Your task to perform on an android device: Open location settings Image 0: 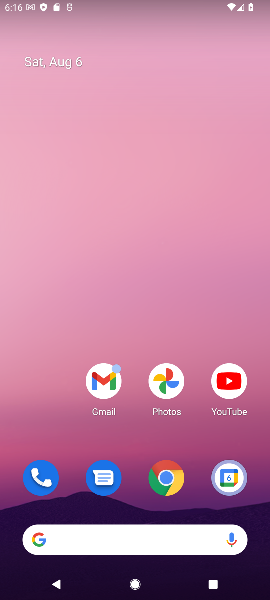
Step 0: drag from (134, 514) to (147, 182)
Your task to perform on an android device: Open location settings Image 1: 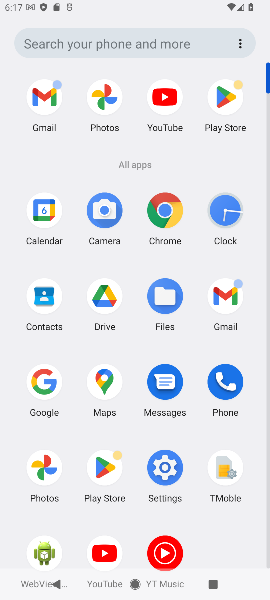
Step 1: click (169, 473)
Your task to perform on an android device: Open location settings Image 2: 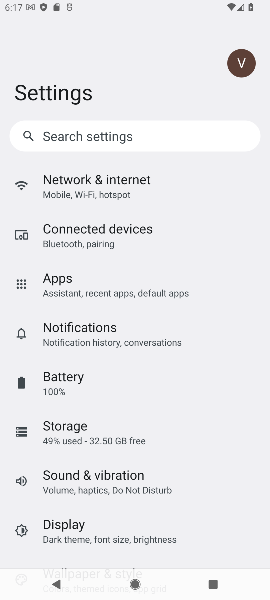
Step 2: drag from (101, 450) to (105, 180)
Your task to perform on an android device: Open location settings Image 3: 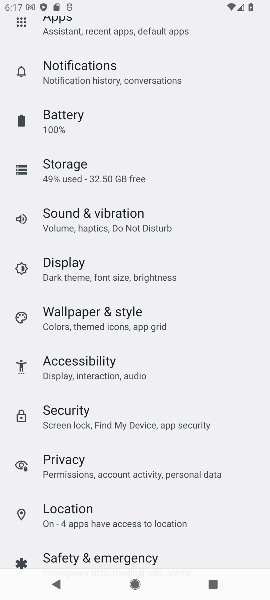
Step 3: drag from (113, 447) to (113, 340)
Your task to perform on an android device: Open location settings Image 4: 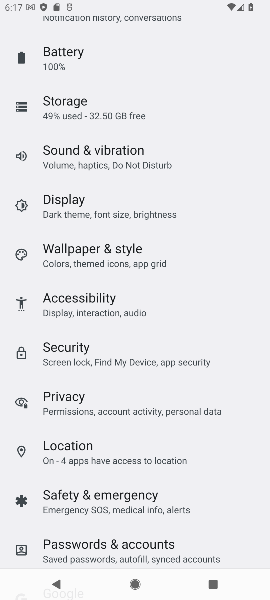
Step 4: click (91, 457)
Your task to perform on an android device: Open location settings Image 5: 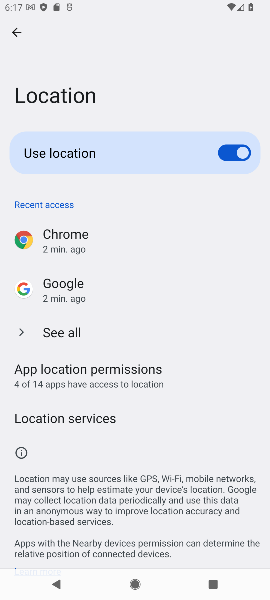
Step 5: task complete